Your task to perform on an android device: Go to Amazon Image 0: 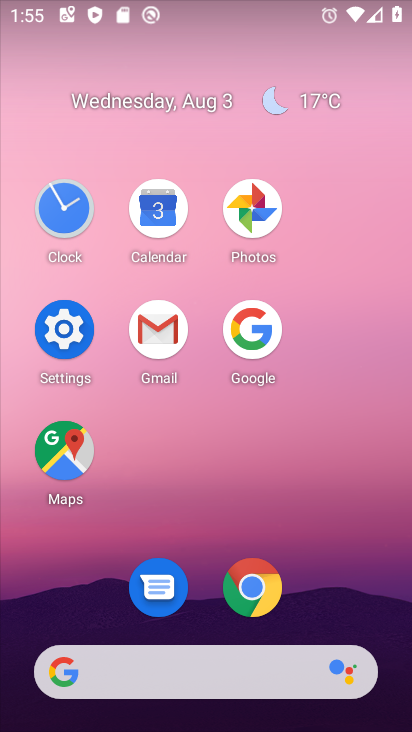
Step 0: click (257, 585)
Your task to perform on an android device: Go to Amazon Image 1: 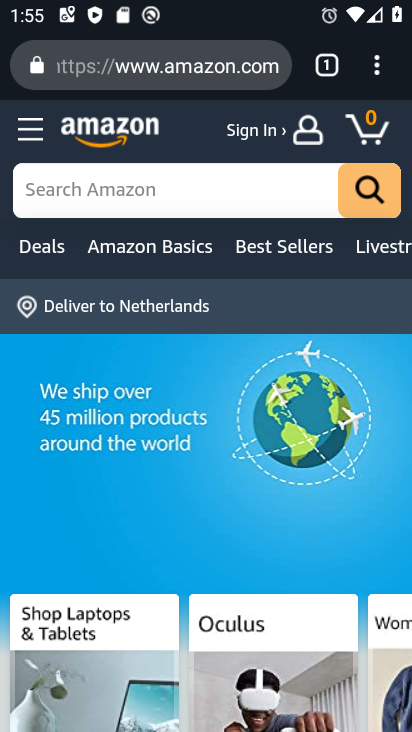
Step 1: task complete